Your task to perform on an android device: Open Youtube and go to the subscriptions tab Image 0: 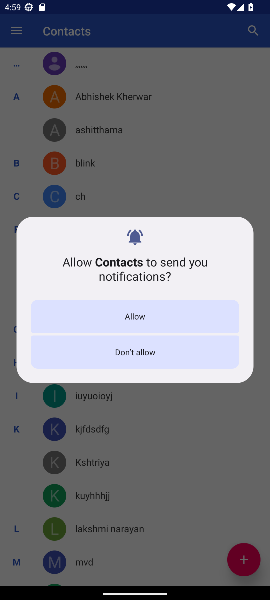
Step 0: press home button
Your task to perform on an android device: Open Youtube and go to the subscriptions tab Image 1: 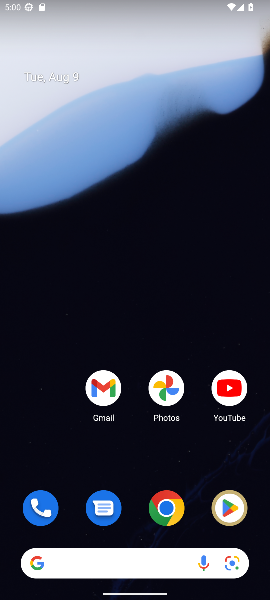
Step 1: click (234, 389)
Your task to perform on an android device: Open Youtube and go to the subscriptions tab Image 2: 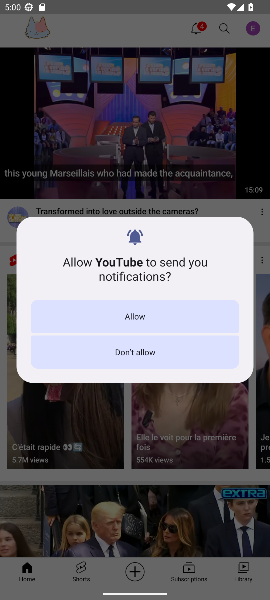
Step 2: click (198, 308)
Your task to perform on an android device: Open Youtube and go to the subscriptions tab Image 3: 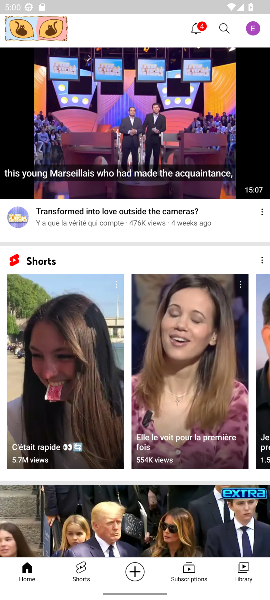
Step 3: click (179, 569)
Your task to perform on an android device: Open Youtube and go to the subscriptions tab Image 4: 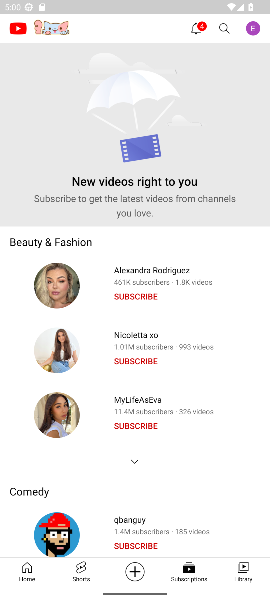
Step 4: task complete